Your task to perform on an android device: turn smart compose on in the gmail app Image 0: 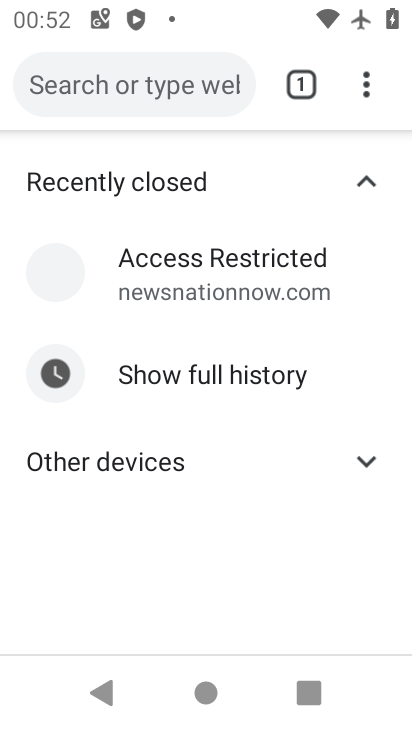
Step 0: click (256, 275)
Your task to perform on an android device: turn smart compose on in the gmail app Image 1: 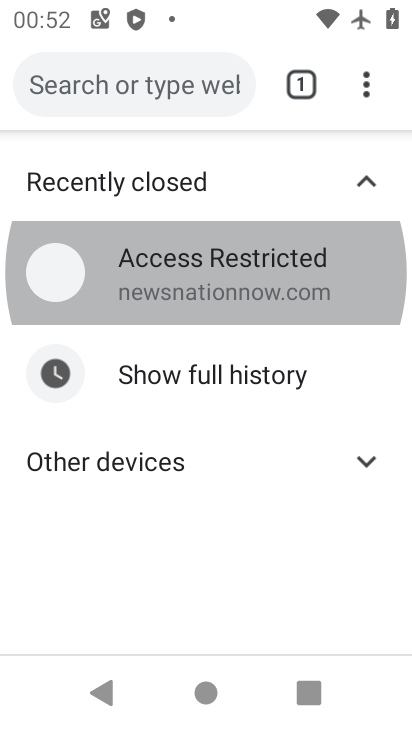
Step 1: press home button
Your task to perform on an android device: turn smart compose on in the gmail app Image 2: 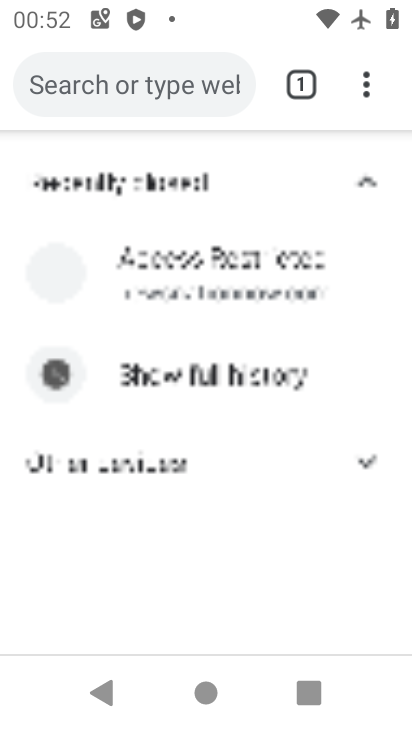
Step 2: click (194, 330)
Your task to perform on an android device: turn smart compose on in the gmail app Image 3: 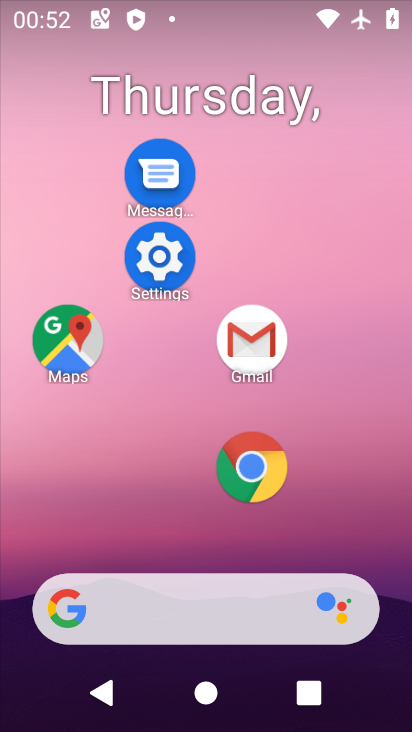
Step 3: drag from (215, 545) to (270, 280)
Your task to perform on an android device: turn smart compose on in the gmail app Image 4: 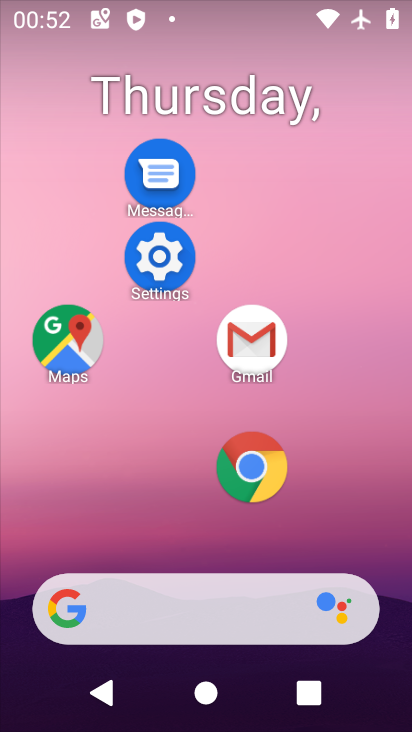
Step 4: click (247, 337)
Your task to perform on an android device: turn smart compose on in the gmail app Image 5: 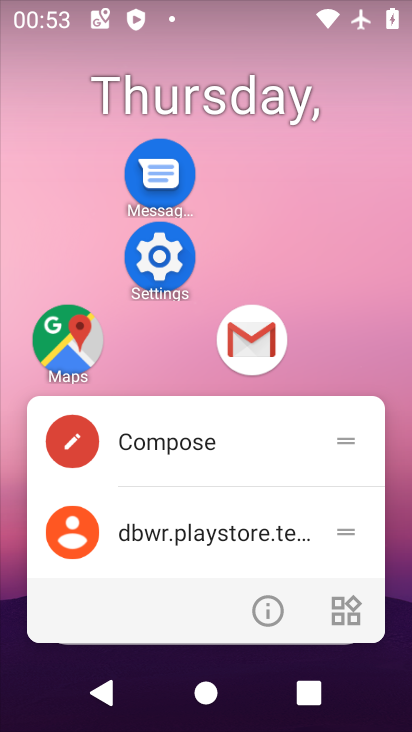
Step 5: click (172, 347)
Your task to perform on an android device: turn smart compose on in the gmail app Image 6: 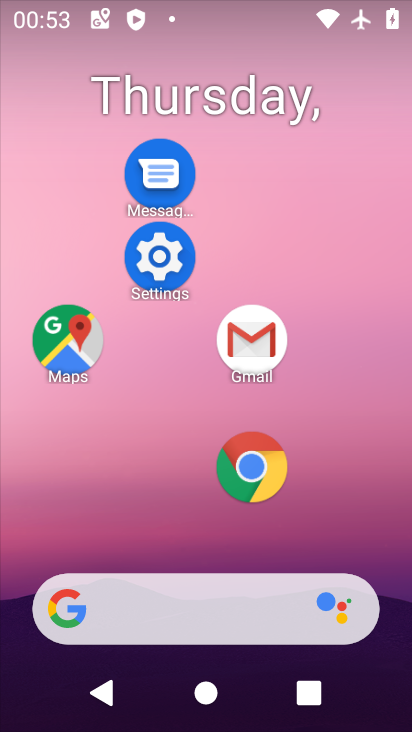
Step 6: click (252, 353)
Your task to perform on an android device: turn smart compose on in the gmail app Image 7: 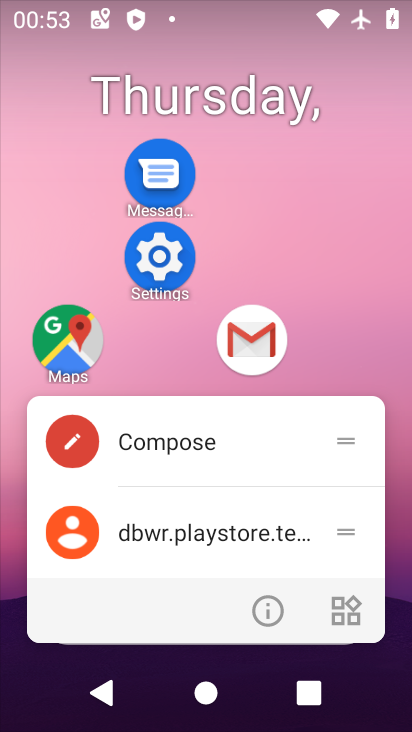
Step 7: click (263, 618)
Your task to perform on an android device: turn smart compose on in the gmail app Image 8: 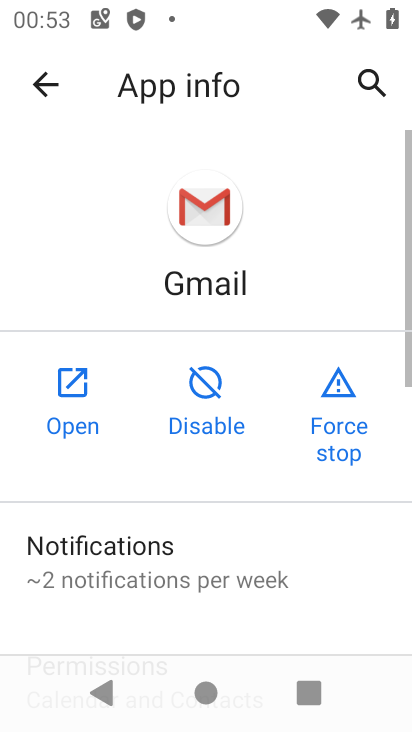
Step 8: click (72, 383)
Your task to perform on an android device: turn smart compose on in the gmail app Image 9: 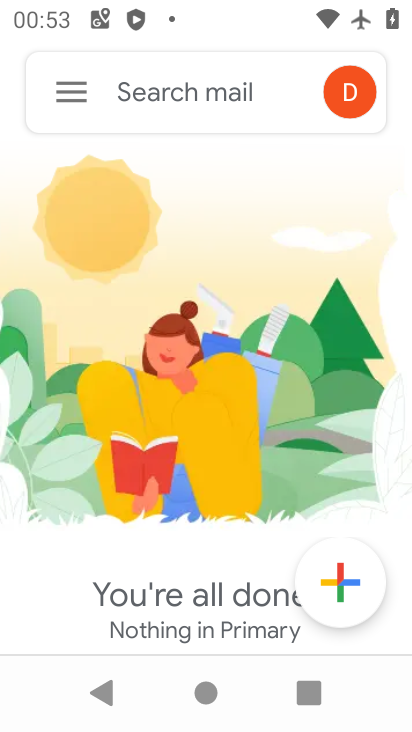
Step 9: click (70, 91)
Your task to perform on an android device: turn smart compose on in the gmail app Image 10: 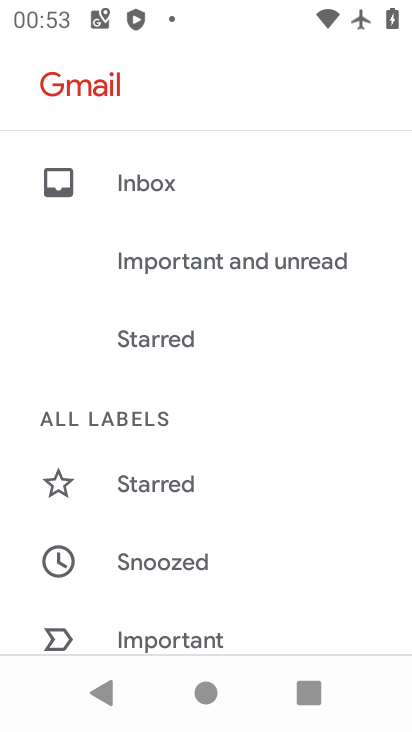
Step 10: drag from (196, 621) to (274, 56)
Your task to perform on an android device: turn smart compose on in the gmail app Image 11: 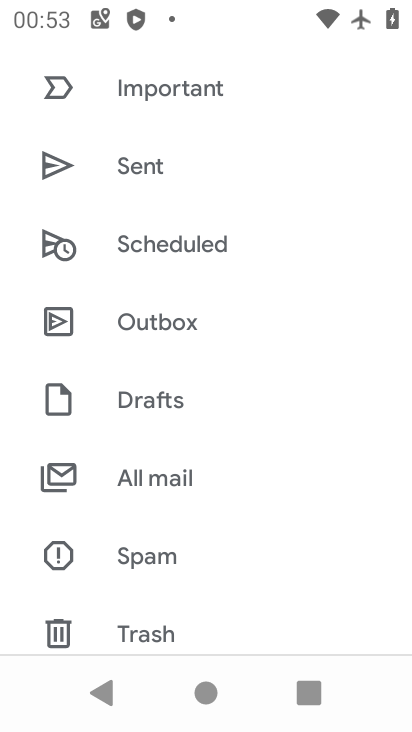
Step 11: drag from (194, 527) to (287, 104)
Your task to perform on an android device: turn smart compose on in the gmail app Image 12: 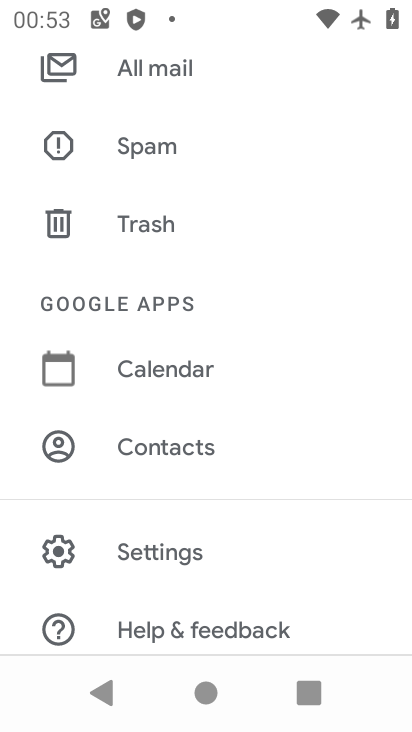
Step 12: click (163, 551)
Your task to perform on an android device: turn smart compose on in the gmail app Image 13: 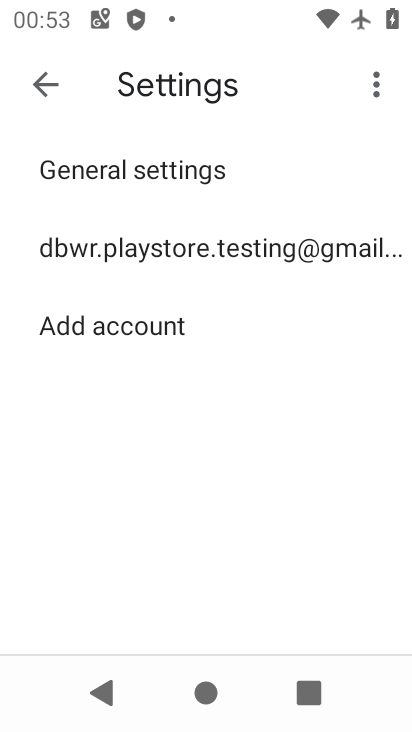
Step 13: drag from (174, 529) to (268, 13)
Your task to perform on an android device: turn smart compose on in the gmail app Image 14: 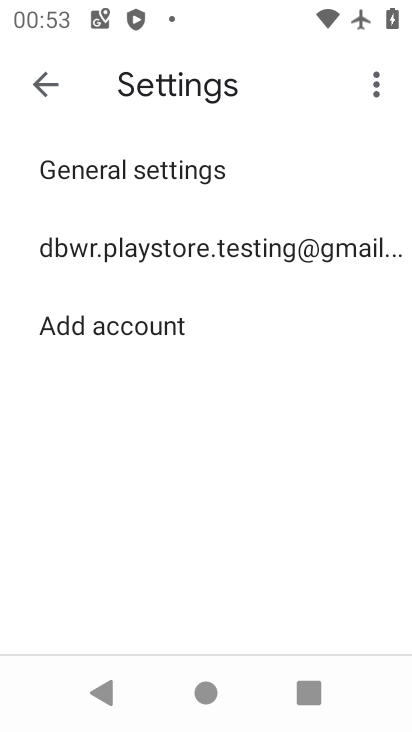
Step 14: click (179, 255)
Your task to perform on an android device: turn smart compose on in the gmail app Image 15: 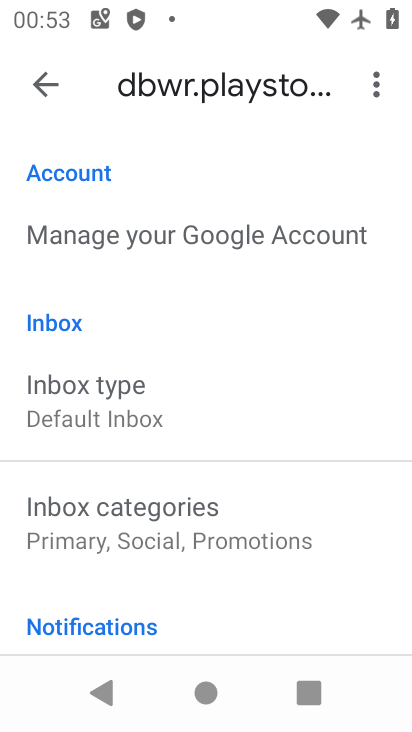
Step 15: task complete